Your task to perform on an android device: What's on my calendar tomorrow? Image 0: 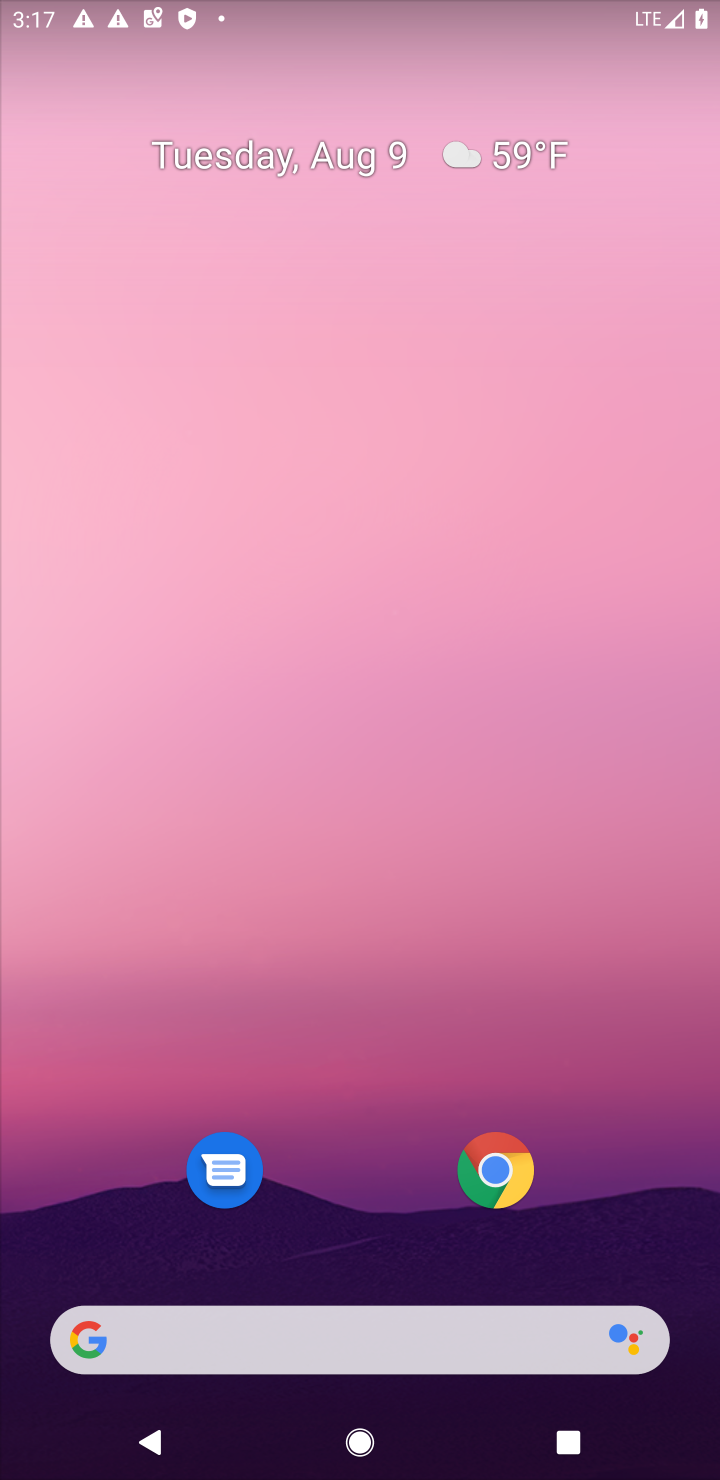
Step 0: press home button
Your task to perform on an android device: What's on my calendar tomorrow? Image 1: 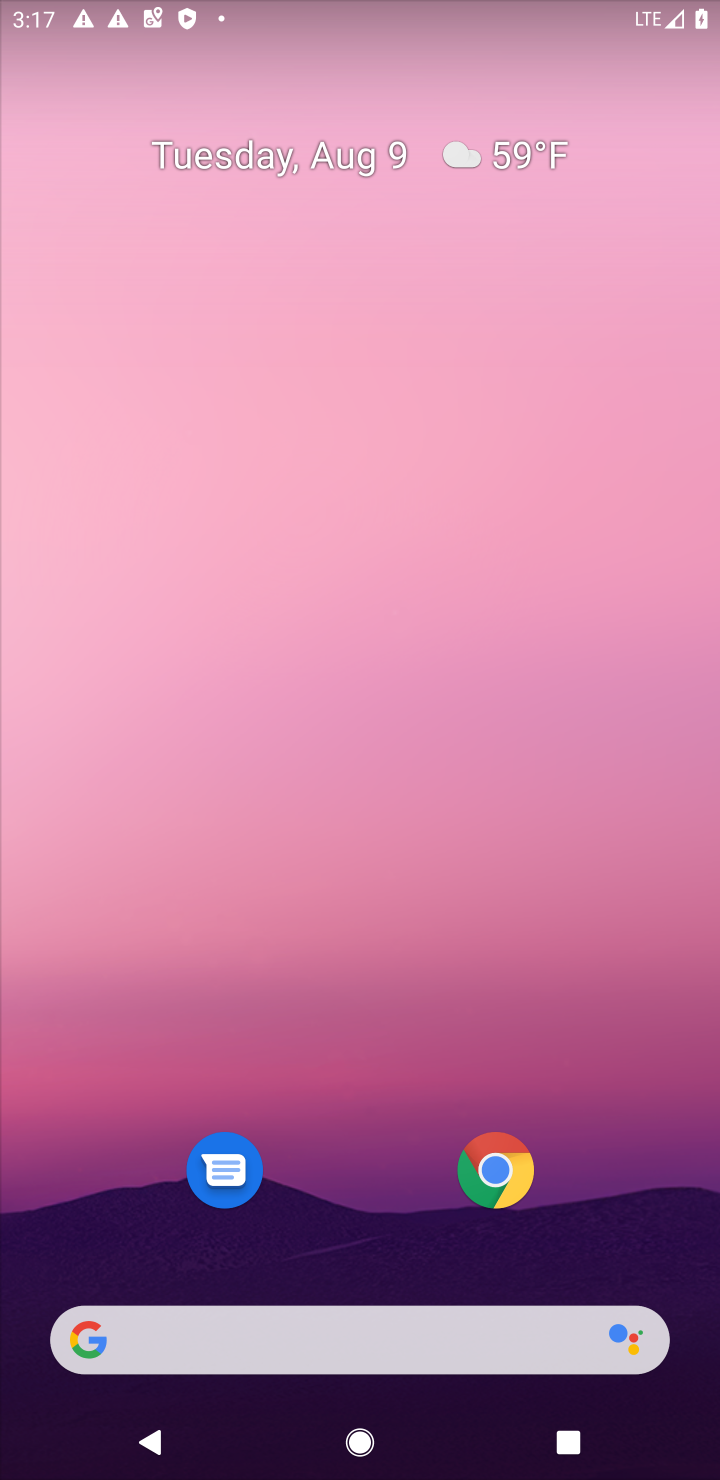
Step 1: drag from (309, 1184) to (284, 309)
Your task to perform on an android device: What's on my calendar tomorrow? Image 2: 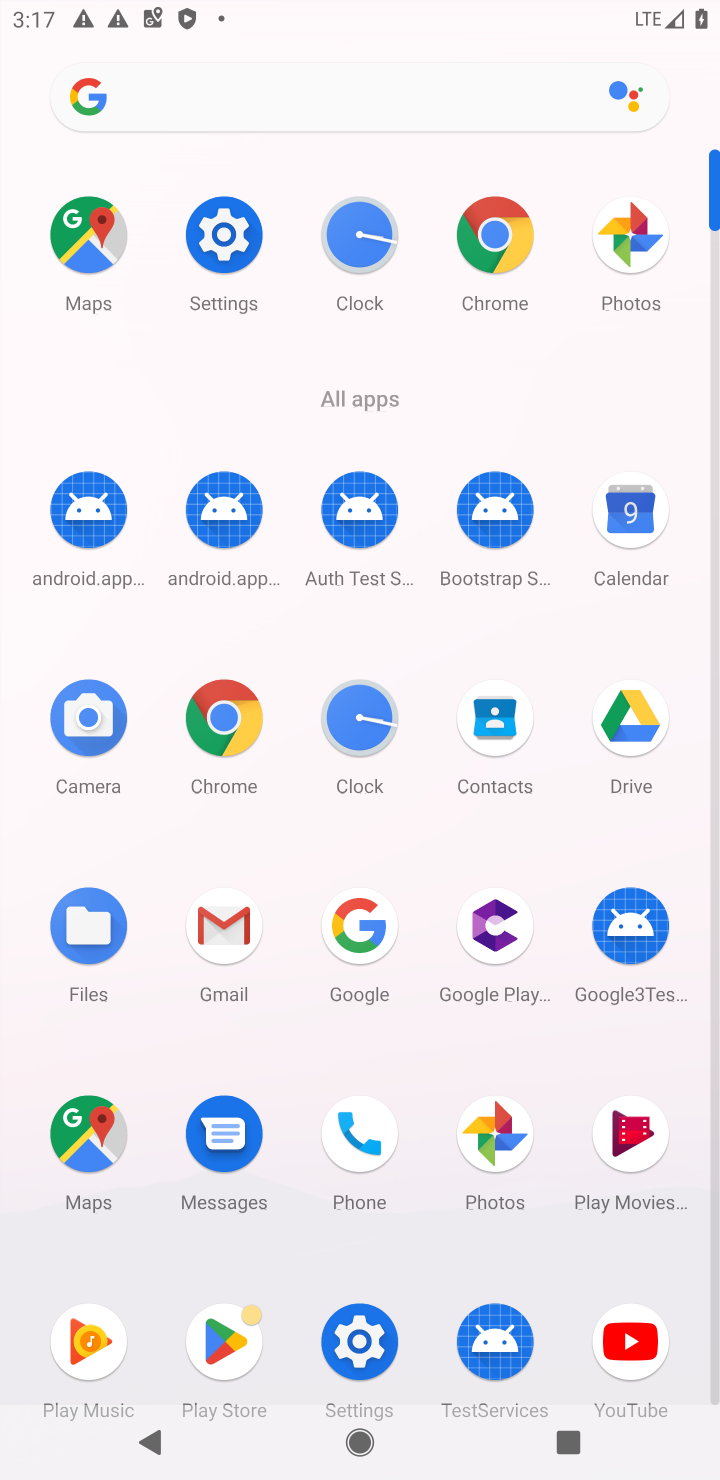
Step 2: click (632, 506)
Your task to perform on an android device: What's on my calendar tomorrow? Image 3: 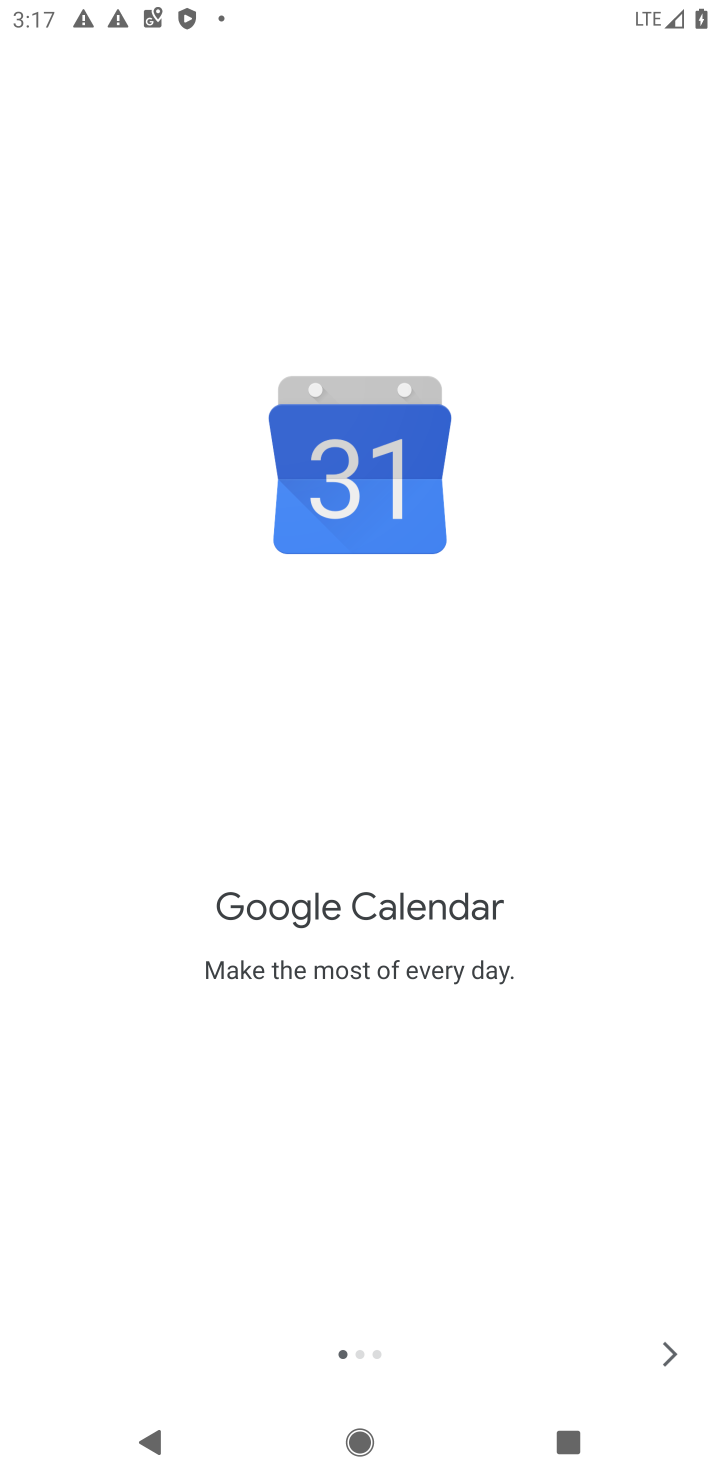
Step 3: click (662, 1353)
Your task to perform on an android device: What's on my calendar tomorrow? Image 4: 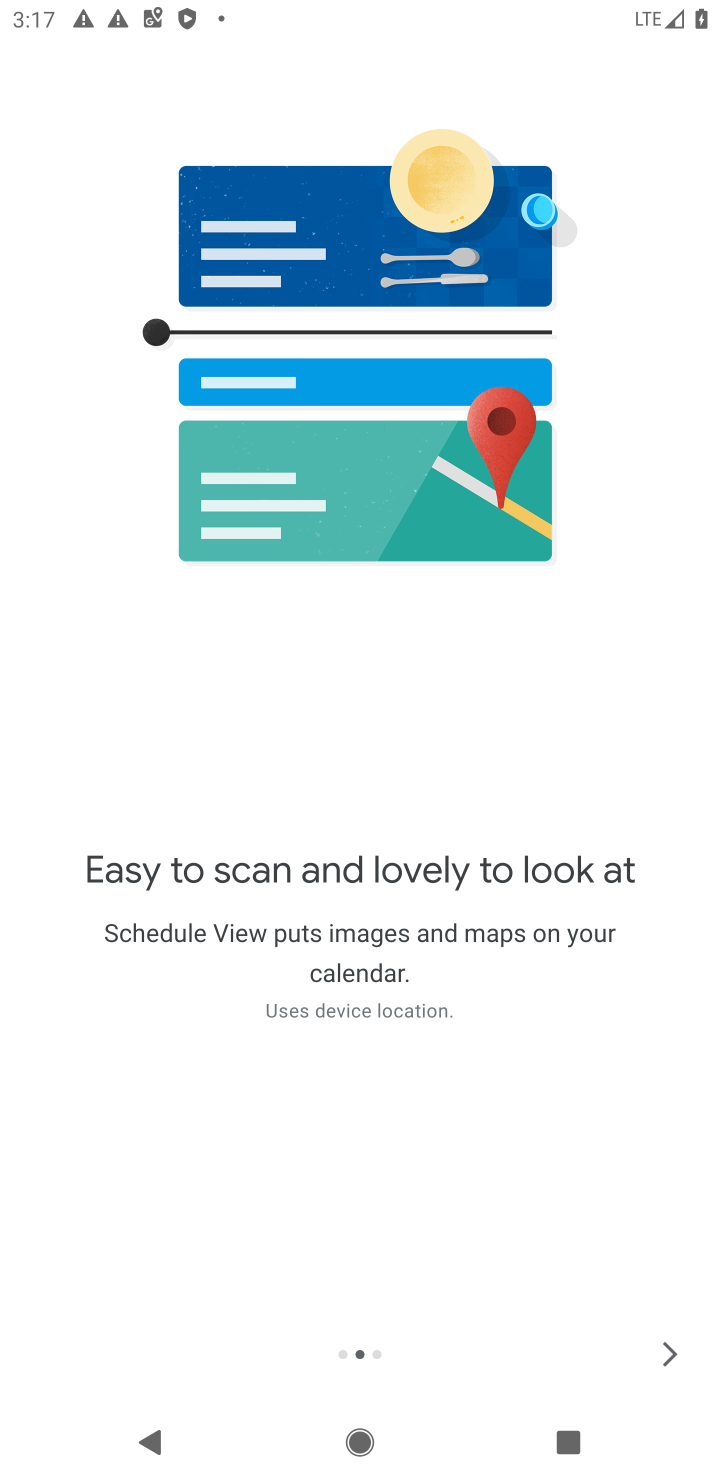
Step 4: click (675, 1341)
Your task to perform on an android device: What's on my calendar tomorrow? Image 5: 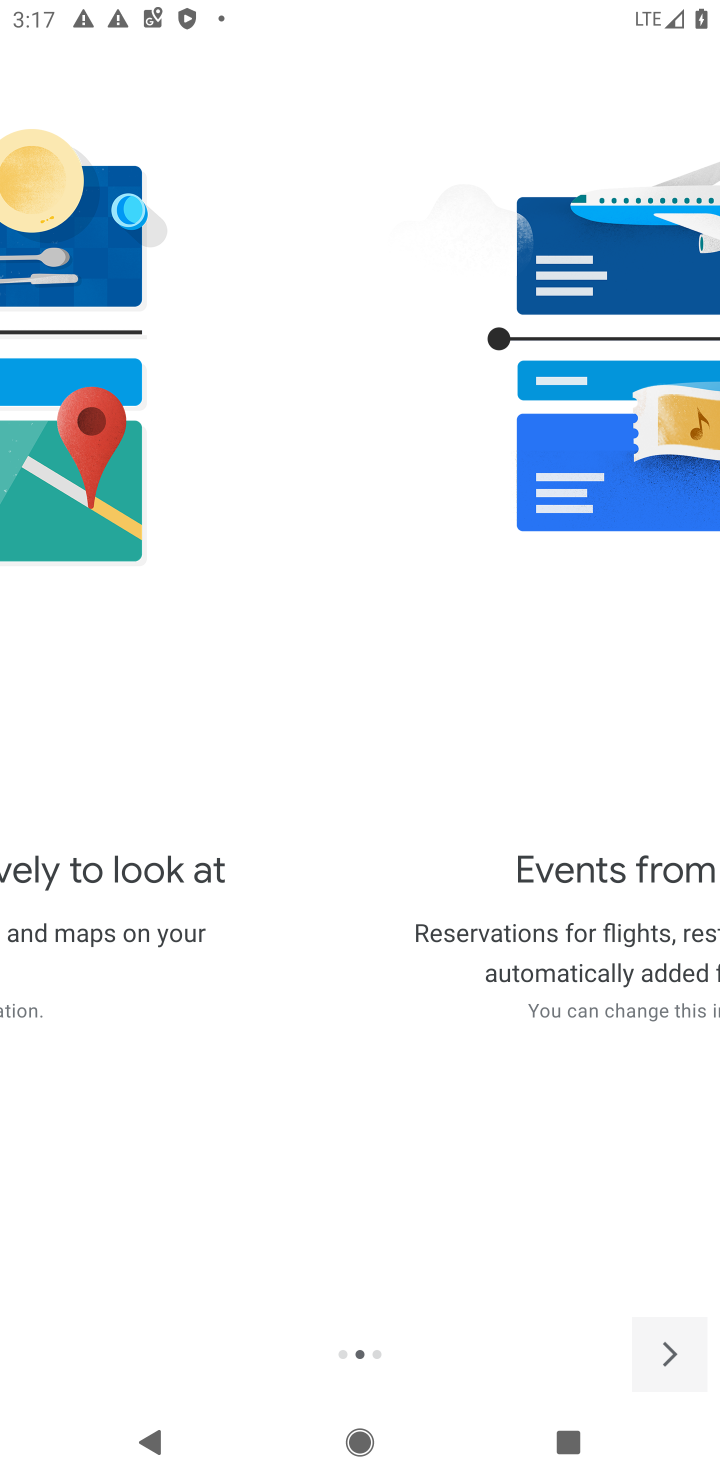
Step 5: click (675, 1341)
Your task to perform on an android device: What's on my calendar tomorrow? Image 6: 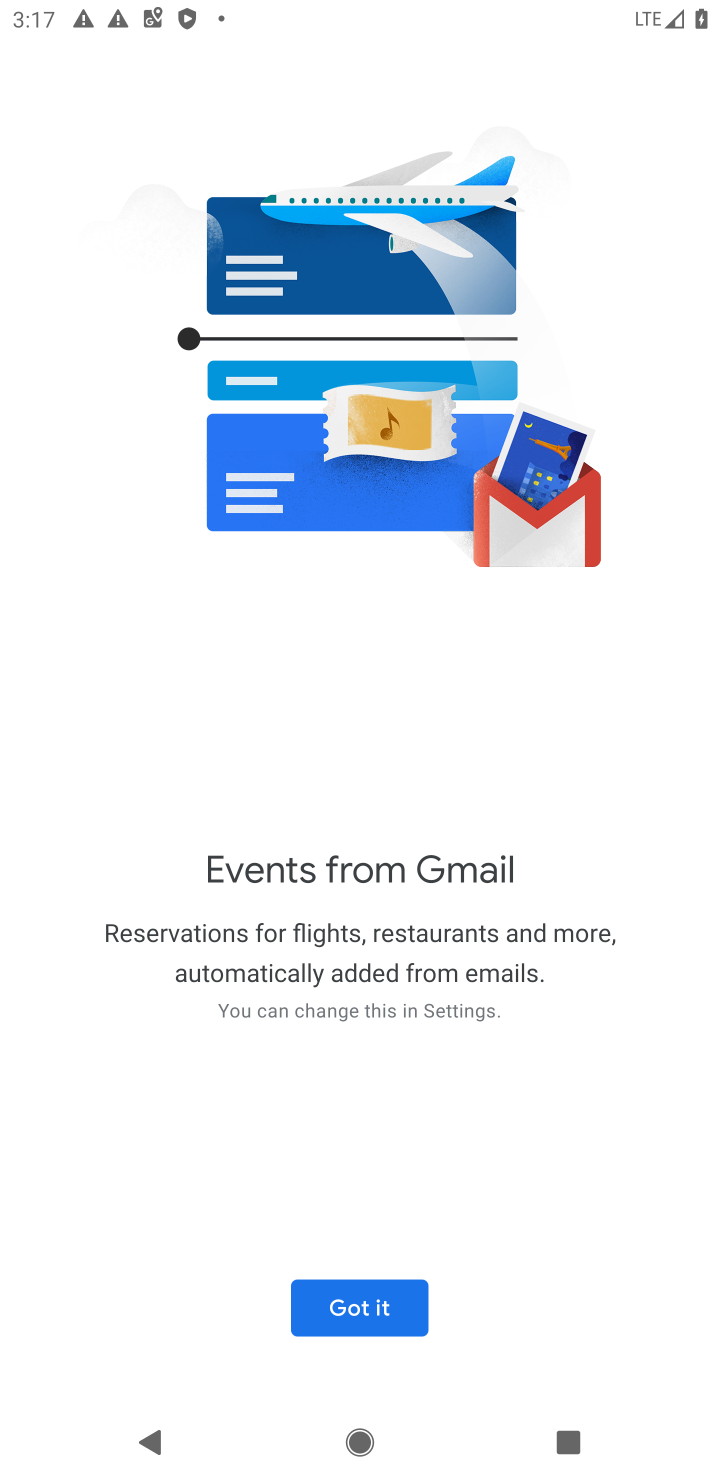
Step 6: click (675, 1341)
Your task to perform on an android device: What's on my calendar tomorrow? Image 7: 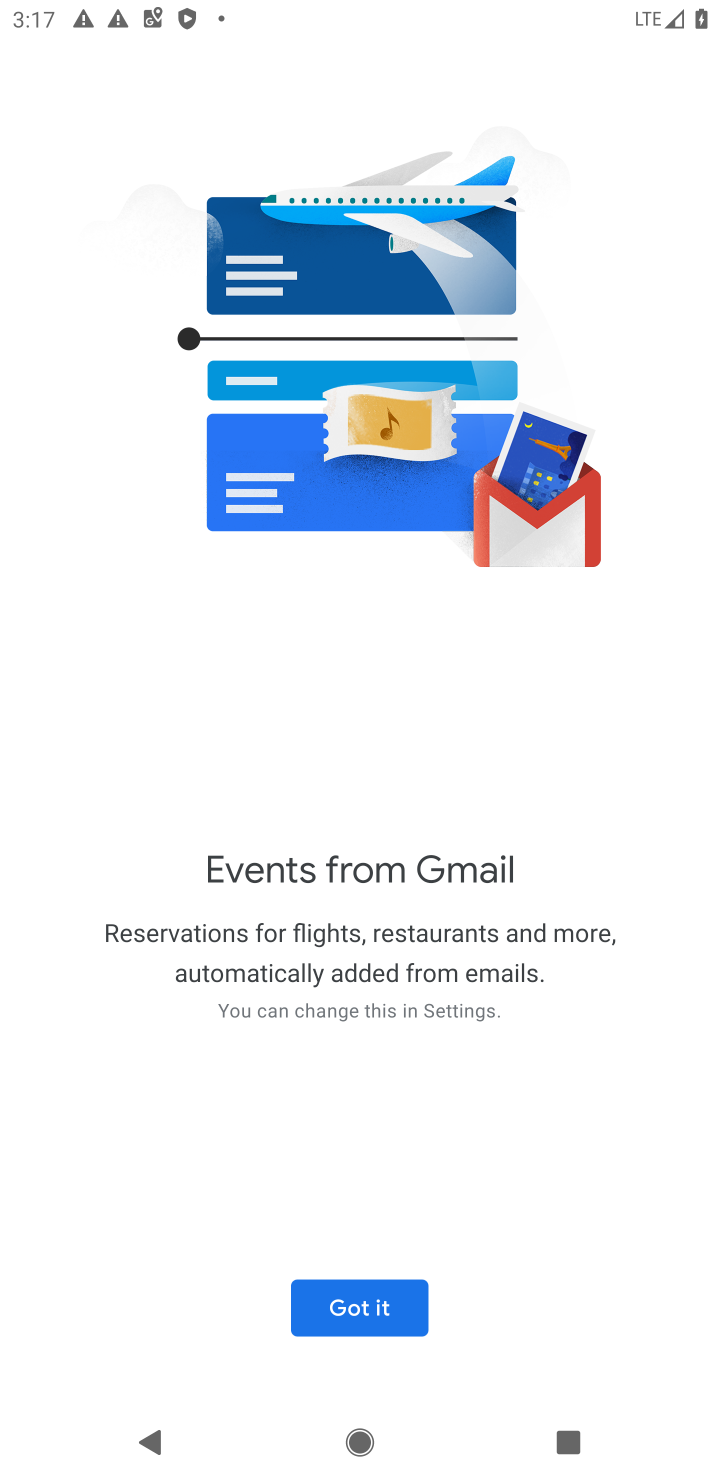
Step 7: click (414, 1297)
Your task to perform on an android device: What's on my calendar tomorrow? Image 8: 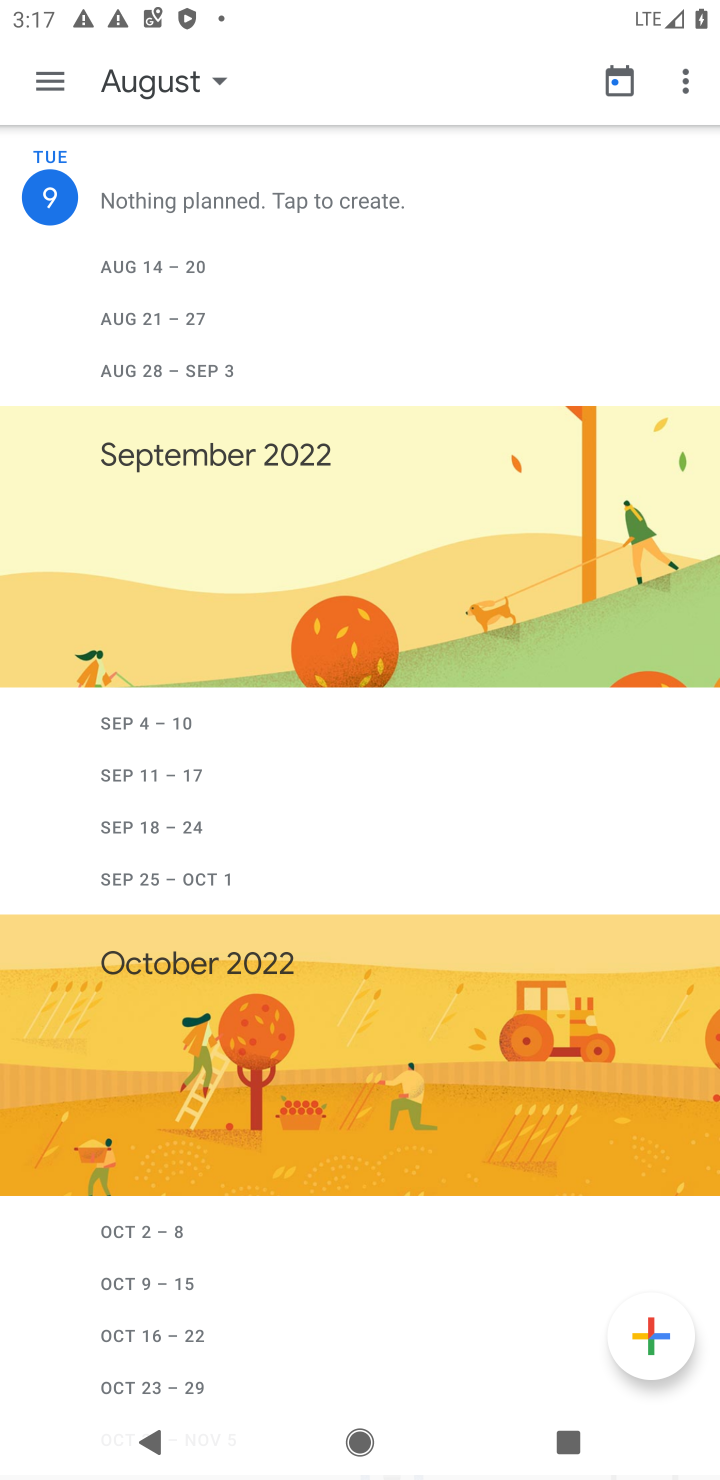
Step 8: click (63, 80)
Your task to perform on an android device: What's on my calendar tomorrow? Image 9: 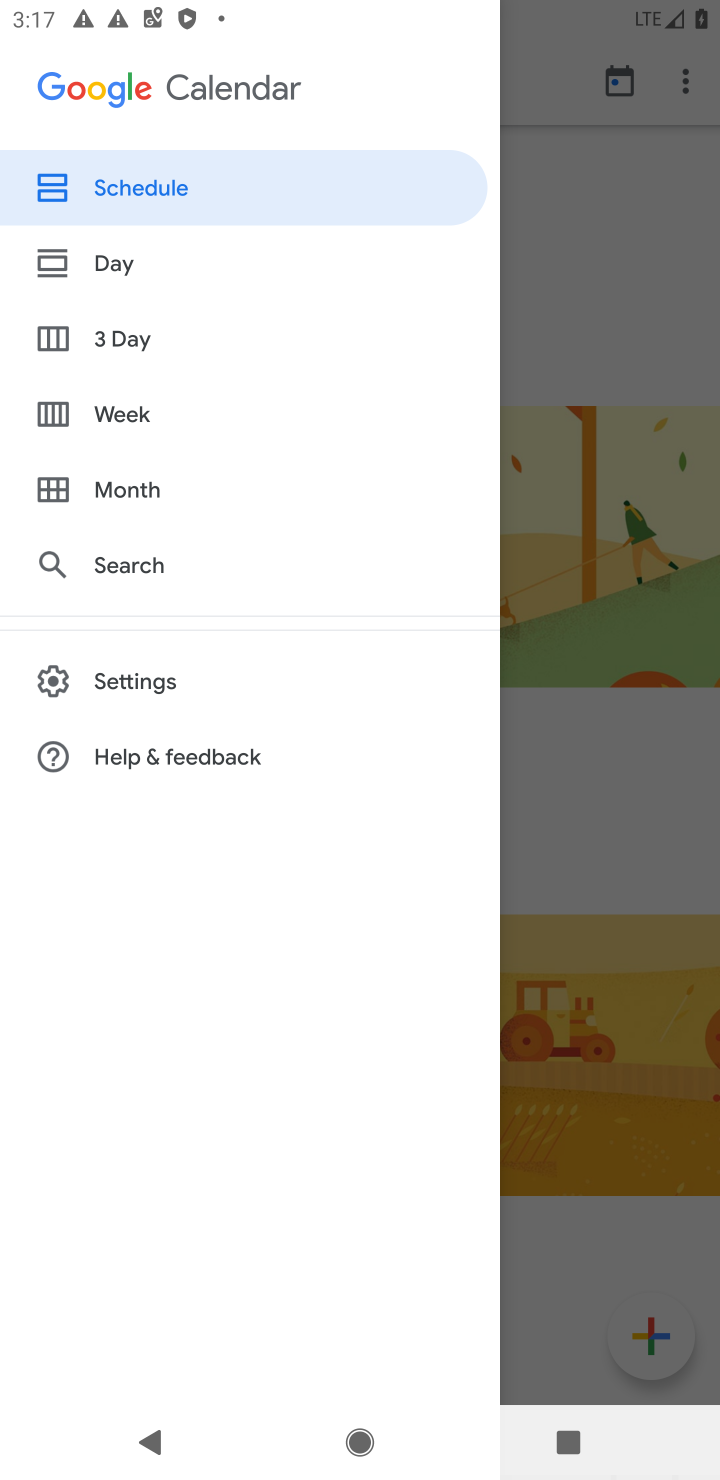
Step 9: click (196, 266)
Your task to perform on an android device: What's on my calendar tomorrow? Image 10: 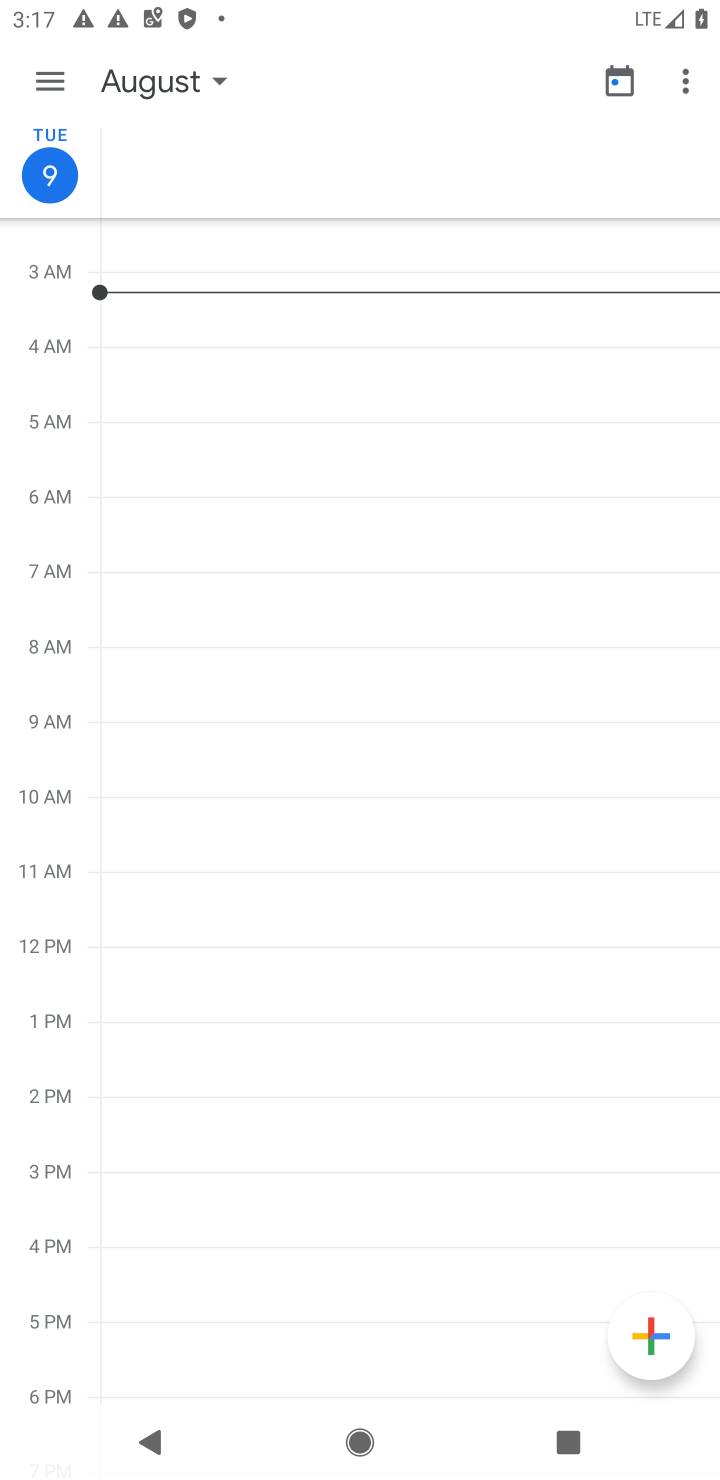
Step 10: task complete